Your task to perform on an android device: View the shopping cart on bestbuy.com. Add logitech g903 to the cart on bestbuy.com, then select checkout. Image 0: 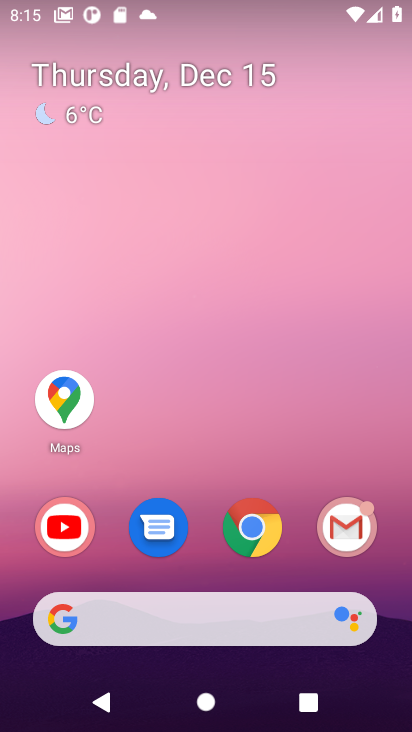
Step 0: click (234, 521)
Your task to perform on an android device: View the shopping cart on bestbuy.com. Add logitech g903 to the cart on bestbuy.com, then select checkout. Image 1: 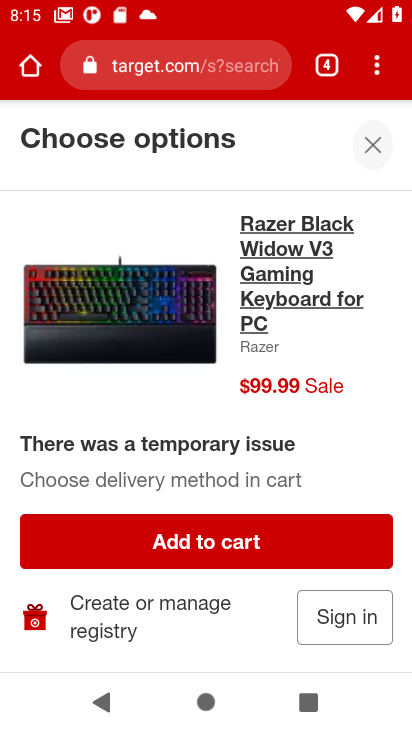
Step 1: drag from (202, 554) to (202, 371)
Your task to perform on an android device: View the shopping cart on bestbuy.com. Add logitech g903 to the cart on bestbuy.com, then select checkout. Image 2: 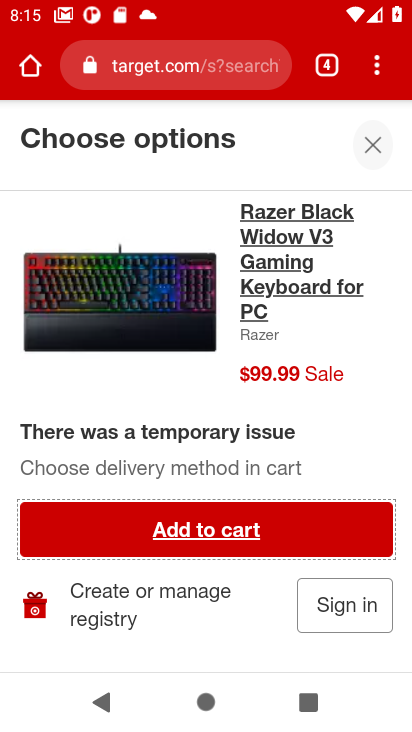
Step 2: click (164, 61)
Your task to perform on an android device: View the shopping cart on bestbuy.com. Add logitech g903 to the cart on bestbuy.com, then select checkout. Image 3: 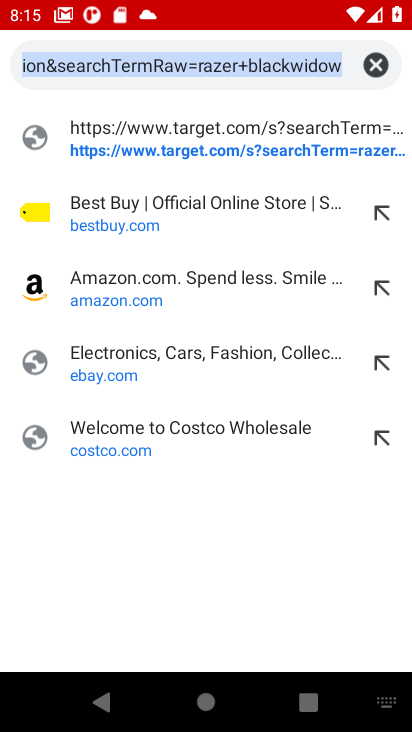
Step 3: click (382, 76)
Your task to perform on an android device: View the shopping cart on bestbuy.com. Add logitech g903 to the cart on bestbuy.com, then select checkout. Image 4: 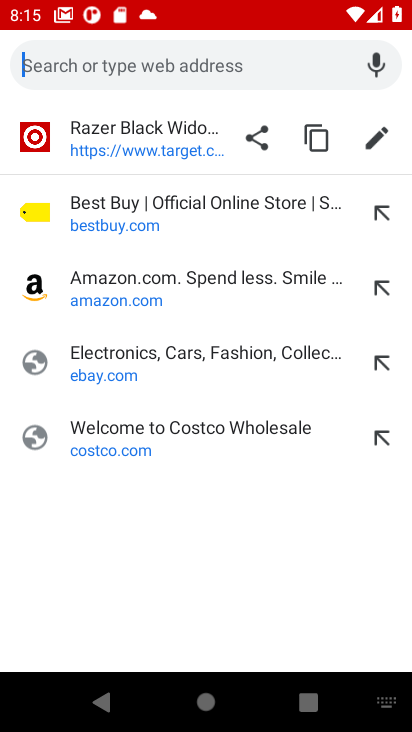
Step 4: type "bestbuy"
Your task to perform on an android device: View the shopping cart on bestbuy.com. Add logitech g903 to the cart on bestbuy.com, then select checkout. Image 5: 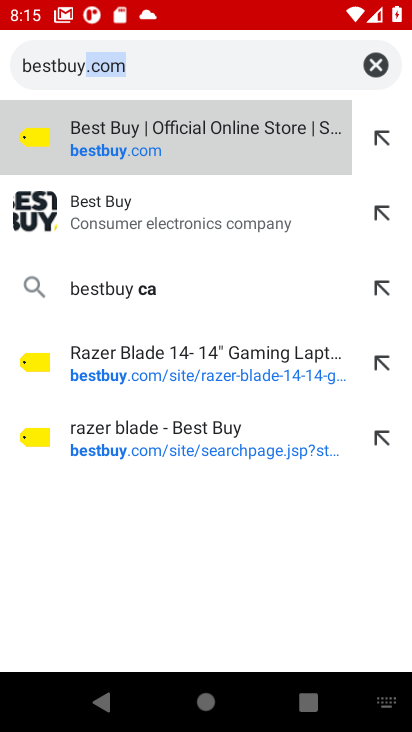
Step 5: click (258, 143)
Your task to perform on an android device: View the shopping cart on bestbuy.com. Add logitech g903 to the cart on bestbuy.com, then select checkout. Image 6: 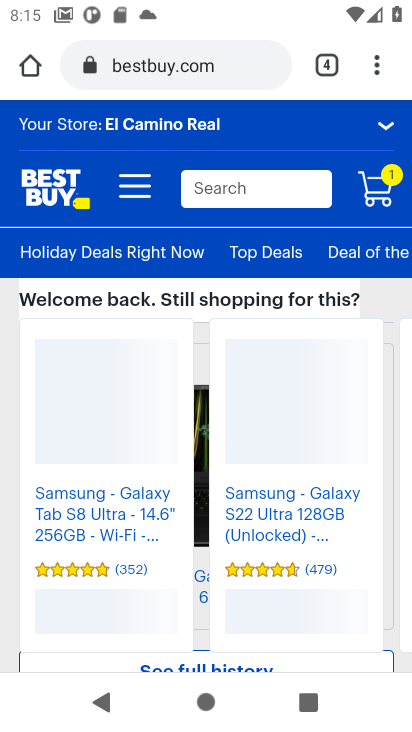
Step 6: click (251, 200)
Your task to perform on an android device: View the shopping cart on bestbuy.com. Add logitech g903 to the cart on bestbuy.com, then select checkout. Image 7: 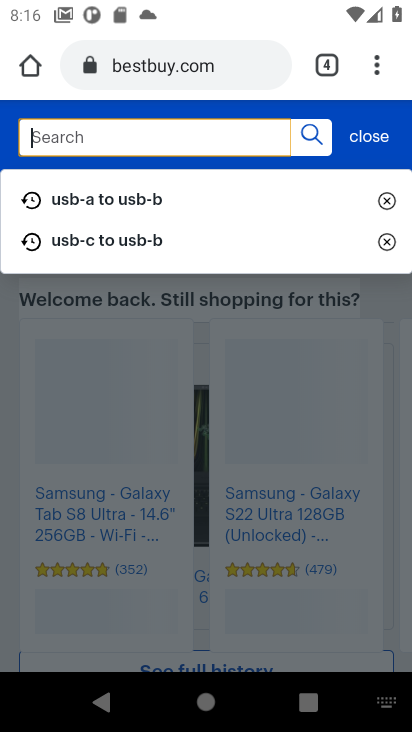
Step 7: type "logitech 903"
Your task to perform on an android device: View the shopping cart on bestbuy.com. Add logitech g903 to the cart on bestbuy.com, then select checkout. Image 8: 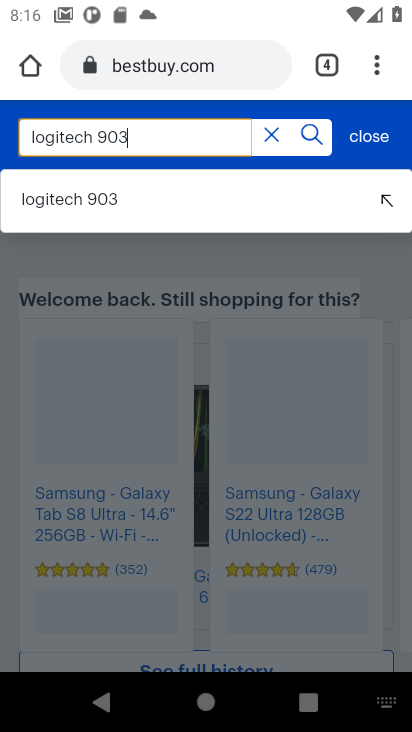
Step 8: click (256, 191)
Your task to perform on an android device: View the shopping cart on bestbuy.com. Add logitech g903 to the cart on bestbuy.com, then select checkout. Image 9: 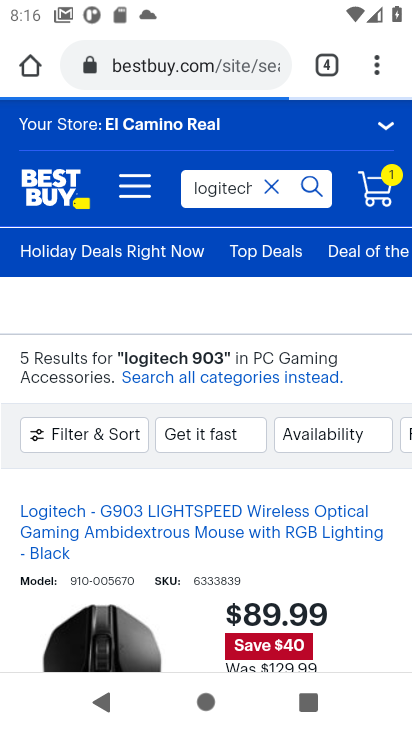
Step 9: drag from (346, 630) to (315, 314)
Your task to perform on an android device: View the shopping cart on bestbuy.com. Add logitech g903 to the cart on bestbuy.com, then select checkout. Image 10: 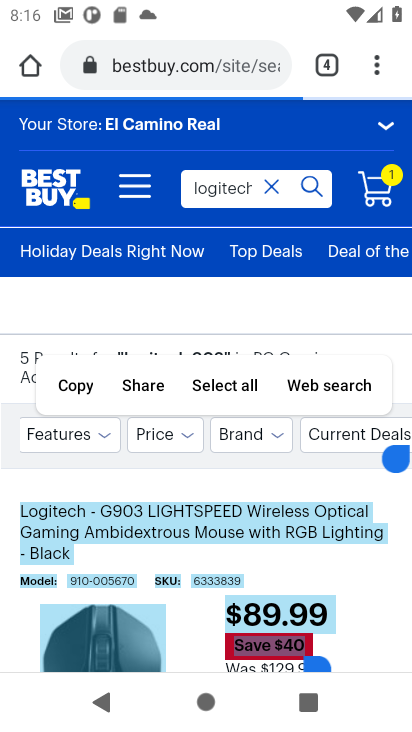
Step 10: click (382, 597)
Your task to perform on an android device: View the shopping cart on bestbuy.com. Add logitech g903 to the cart on bestbuy.com, then select checkout. Image 11: 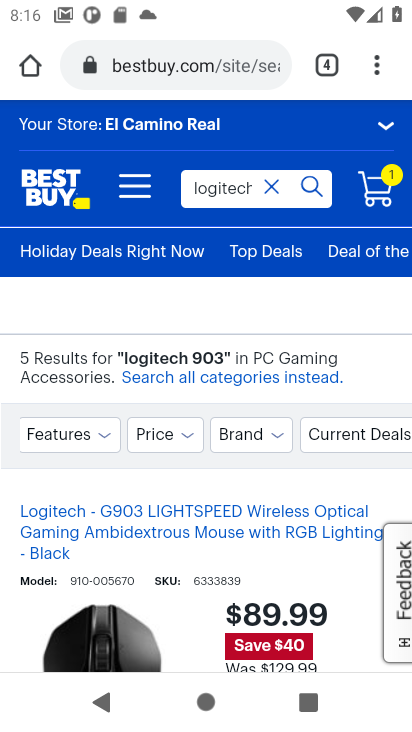
Step 11: drag from (344, 659) to (324, 332)
Your task to perform on an android device: View the shopping cart on bestbuy.com. Add logitech g903 to the cart on bestbuy.com, then select checkout. Image 12: 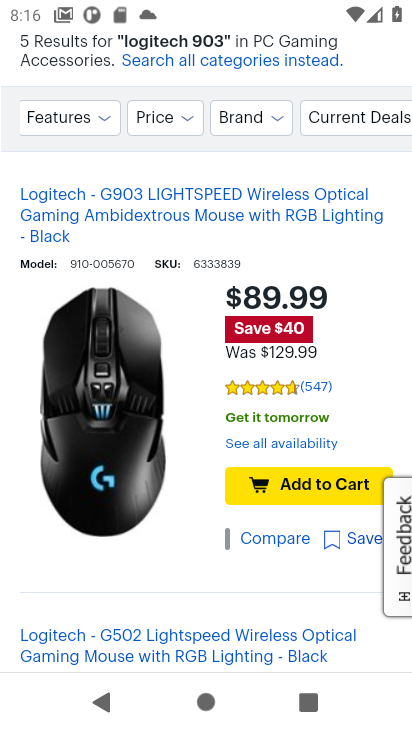
Step 12: click (322, 487)
Your task to perform on an android device: View the shopping cart on bestbuy.com. Add logitech g903 to the cart on bestbuy.com, then select checkout. Image 13: 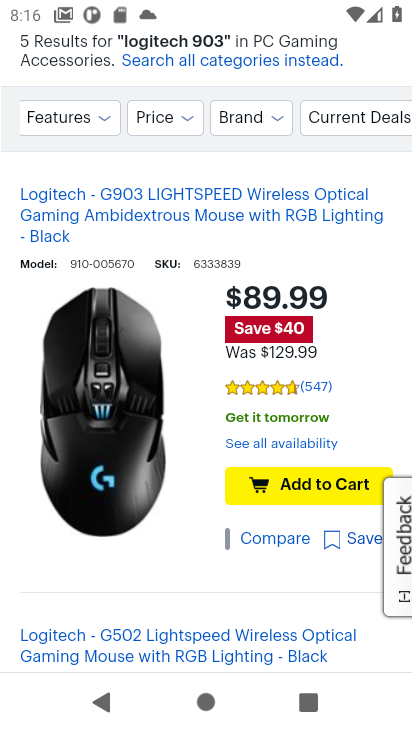
Step 13: task complete